Your task to perform on an android device: Open display settings Image 0: 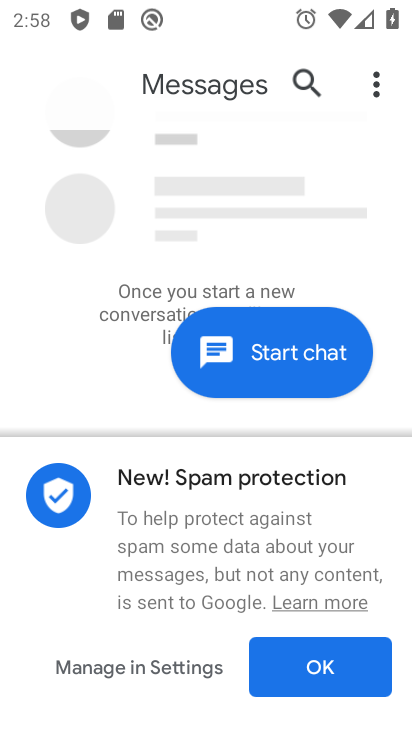
Step 0: press home button
Your task to perform on an android device: Open display settings Image 1: 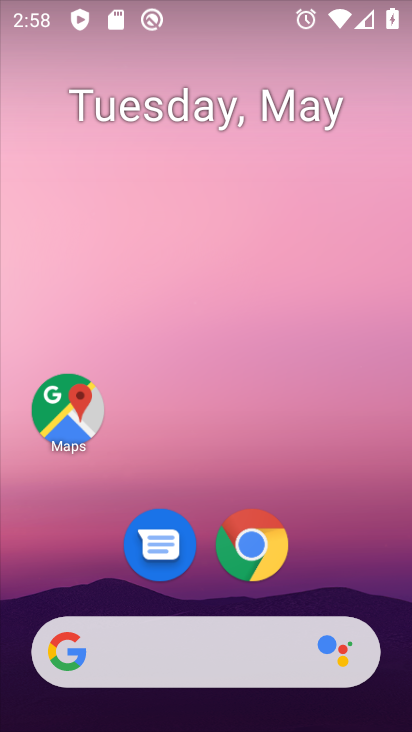
Step 1: drag from (194, 662) to (227, 17)
Your task to perform on an android device: Open display settings Image 2: 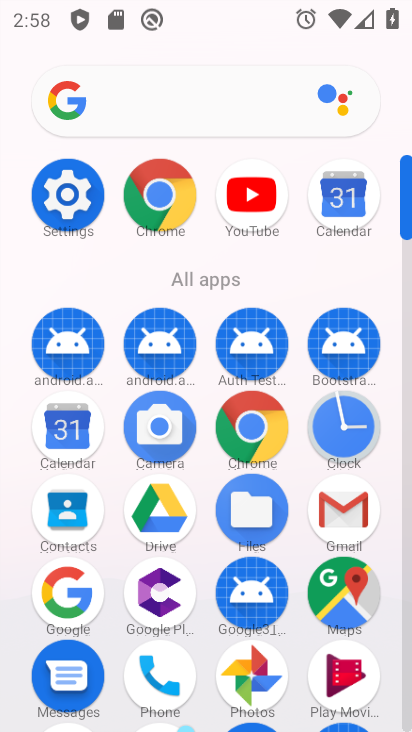
Step 2: click (78, 190)
Your task to perform on an android device: Open display settings Image 3: 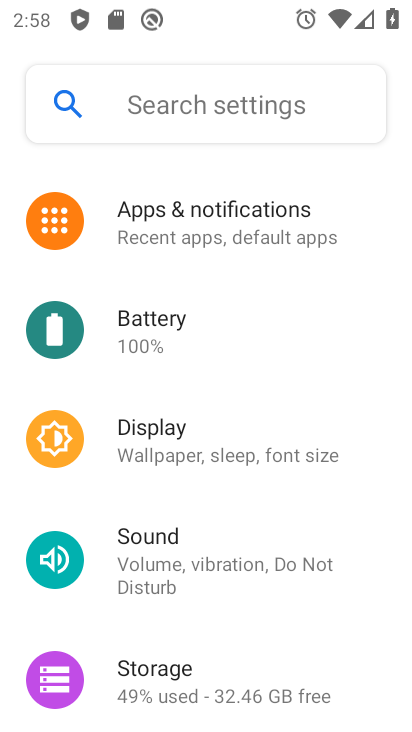
Step 3: click (150, 463)
Your task to perform on an android device: Open display settings Image 4: 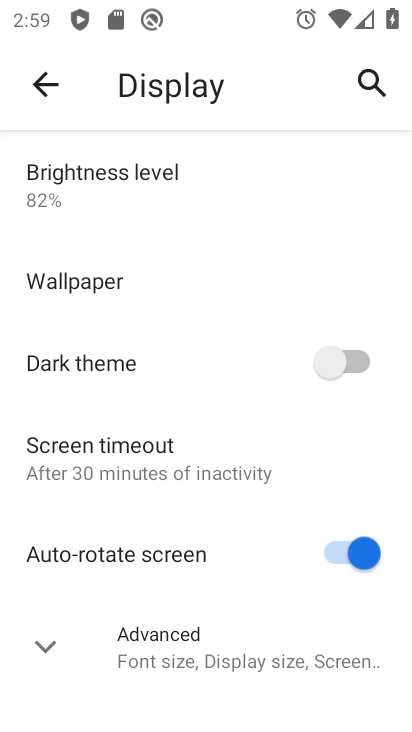
Step 4: task complete